Your task to perform on an android device: allow notifications from all sites in the chrome app Image 0: 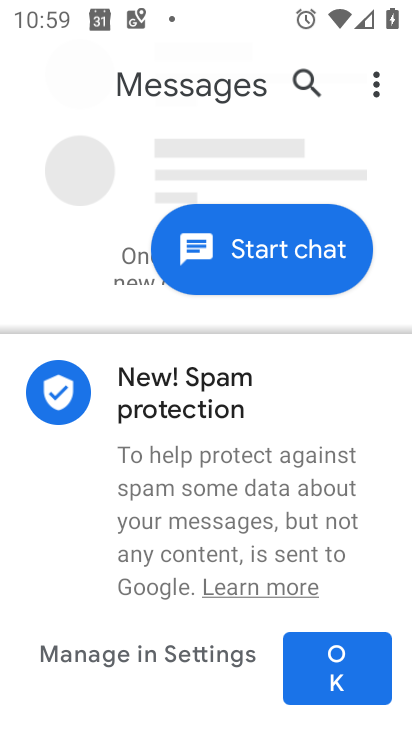
Step 0: press home button
Your task to perform on an android device: allow notifications from all sites in the chrome app Image 1: 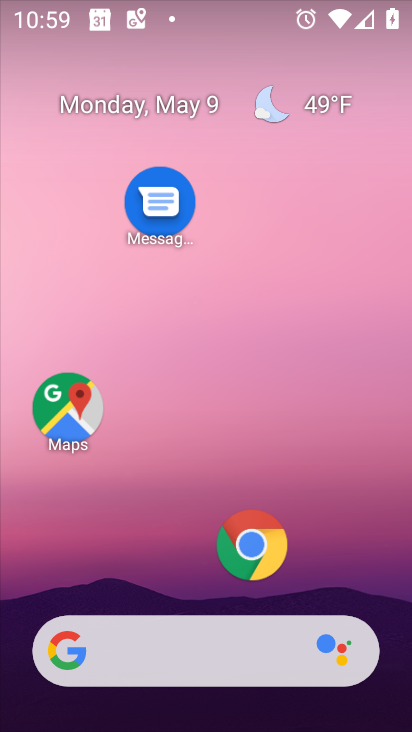
Step 1: click (254, 567)
Your task to perform on an android device: allow notifications from all sites in the chrome app Image 2: 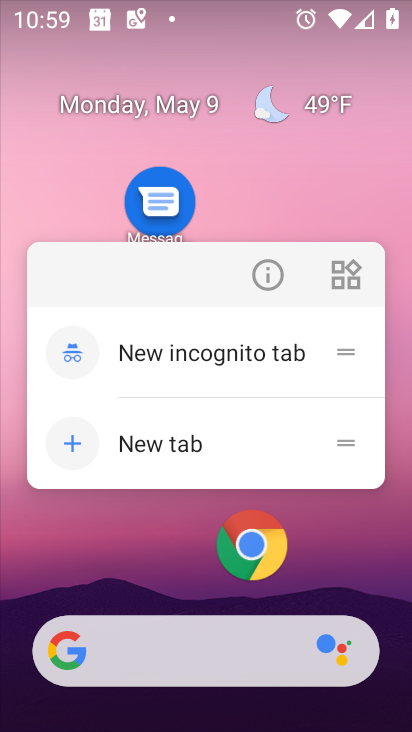
Step 2: click (250, 548)
Your task to perform on an android device: allow notifications from all sites in the chrome app Image 3: 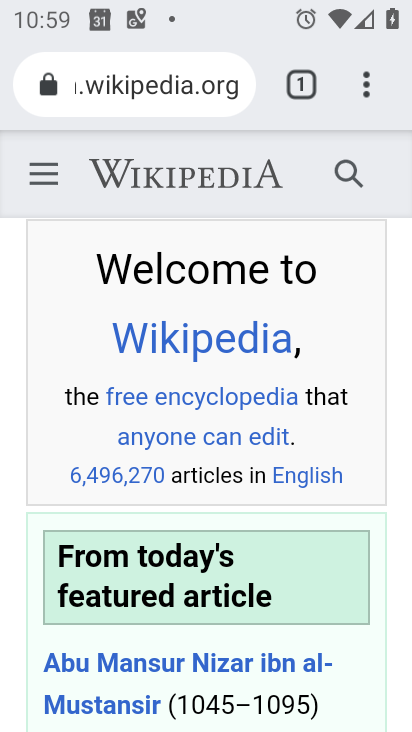
Step 3: click (365, 88)
Your task to perform on an android device: allow notifications from all sites in the chrome app Image 4: 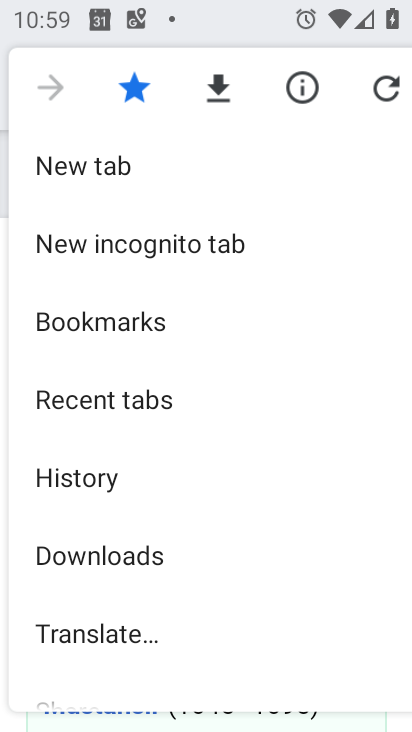
Step 4: drag from (204, 638) to (192, 408)
Your task to perform on an android device: allow notifications from all sites in the chrome app Image 5: 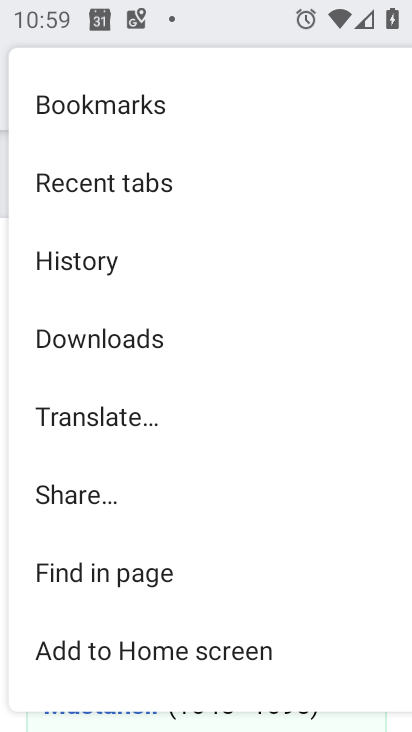
Step 5: drag from (184, 650) to (178, 576)
Your task to perform on an android device: allow notifications from all sites in the chrome app Image 6: 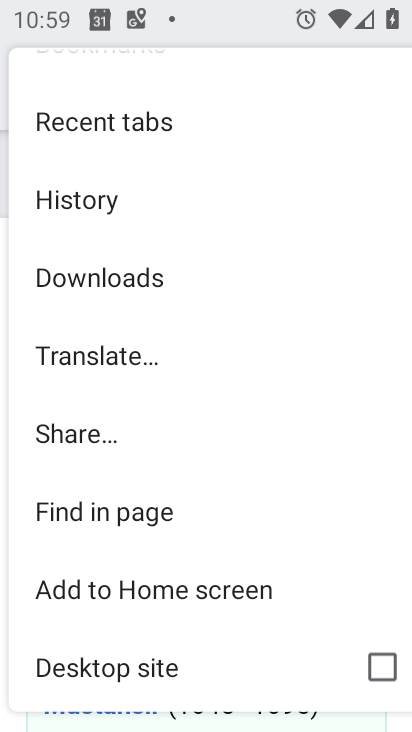
Step 6: drag from (160, 665) to (157, 602)
Your task to perform on an android device: allow notifications from all sites in the chrome app Image 7: 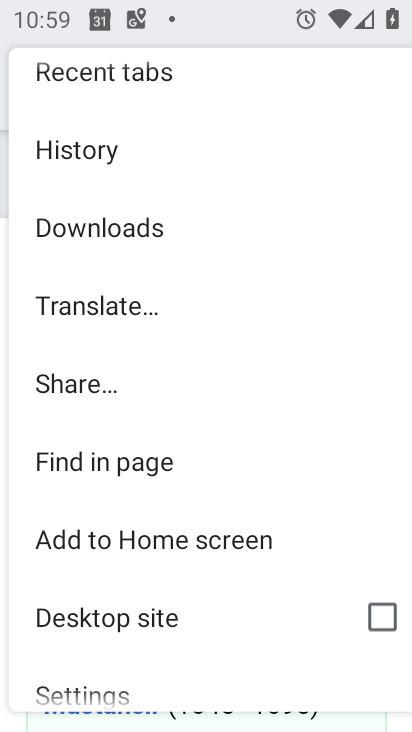
Step 7: click (150, 680)
Your task to perform on an android device: allow notifications from all sites in the chrome app Image 8: 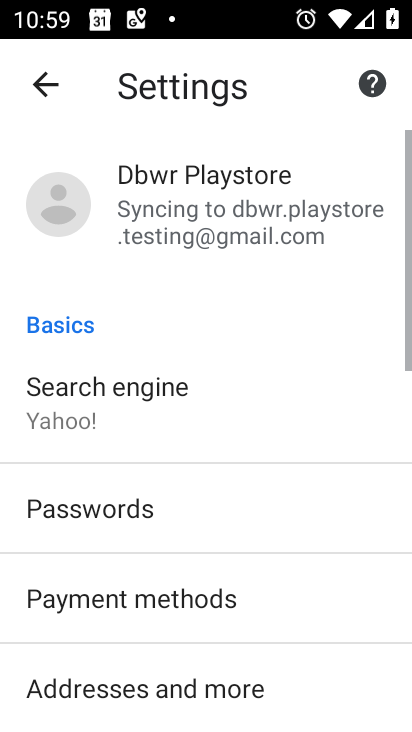
Step 8: drag from (150, 679) to (155, 592)
Your task to perform on an android device: allow notifications from all sites in the chrome app Image 9: 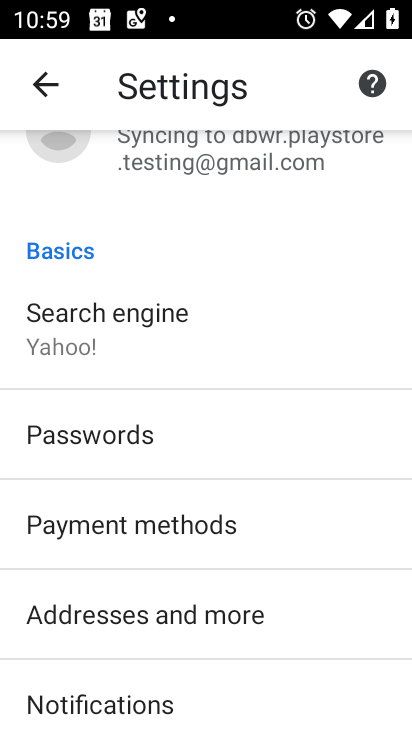
Step 9: drag from (158, 690) to (158, 593)
Your task to perform on an android device: allow notifications from all sites in the chrome app Image 10: 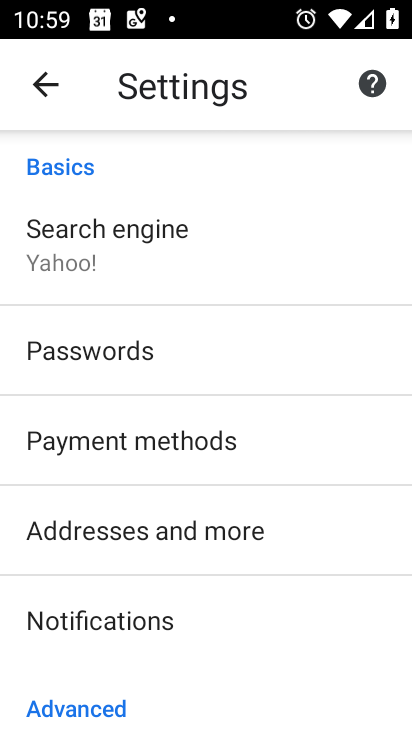
Step 10: click (128, 620)
Your task to perform on an android device: allow notifications from all sites in the chrome app Image 11: 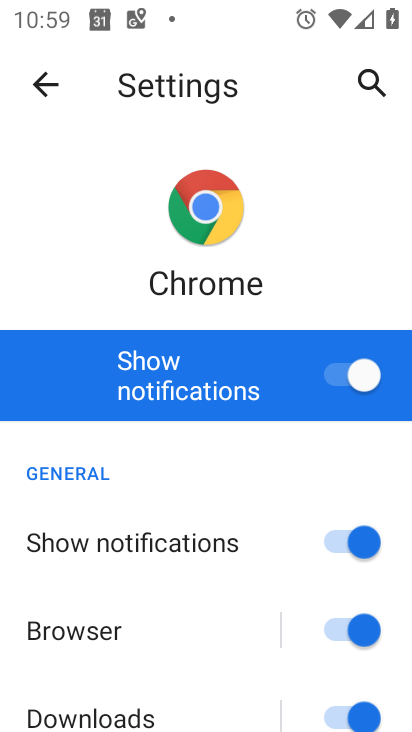
Step 11: task complete